Your task to perform on an android device: turn notification dots on Image 0: 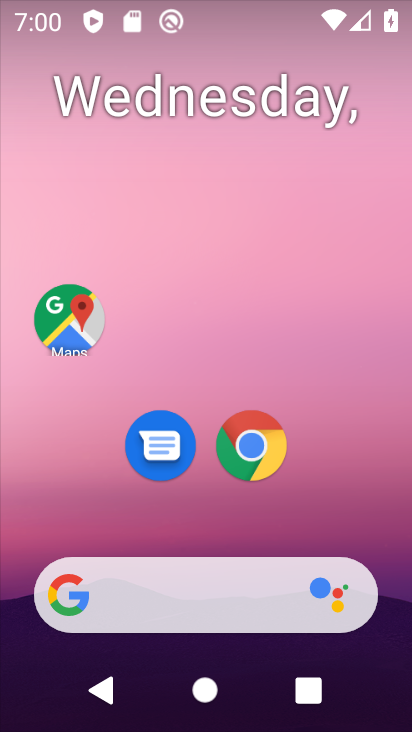
Step 0: press home button
Your task to perform on an android device: turn notification dots on Image 1: 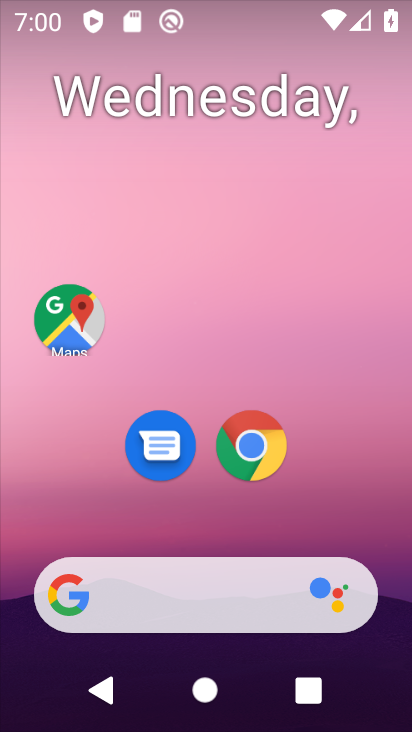
Step 1: drag from (354, 484) to (361, 92)
Your task to perform on an android device: turn notification dots on Image 2: 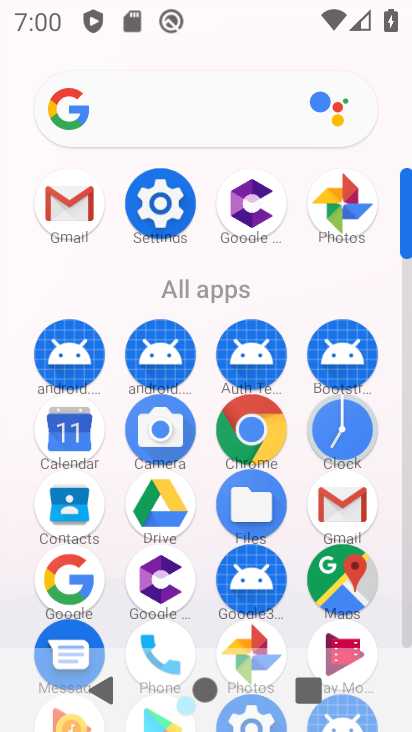
Step 2: drag from (405, 585) to (407, 652)
Your task to perform on an android device: turn notification dots on Image 3: 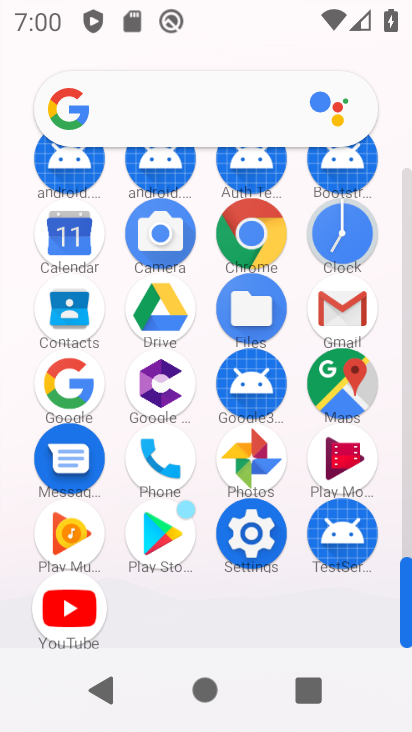
Step 3: click (405, 637)
Your task to perform on an android device: turn notification dots on Image 4: 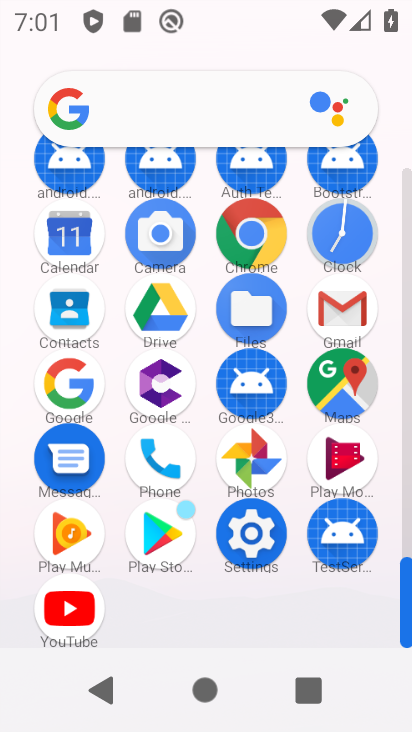
Step 4: click (245, 542)
Your task to perform on an android device: turn notification dots on Image 5: 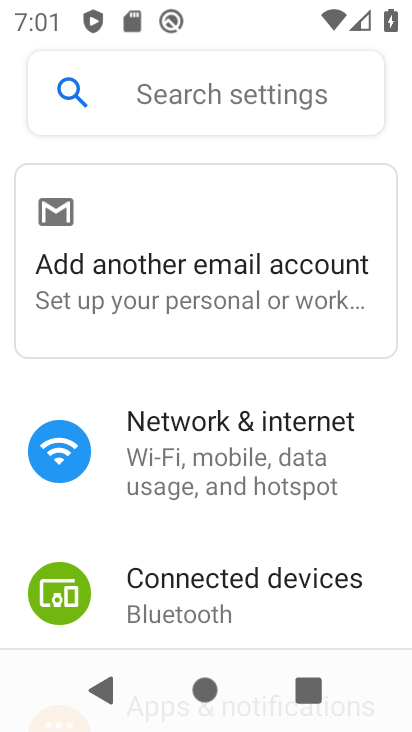
Step 5: drag from (206, 563) to (227, 256)
Your task to perform on an android device: turn notification dots on Image 6: 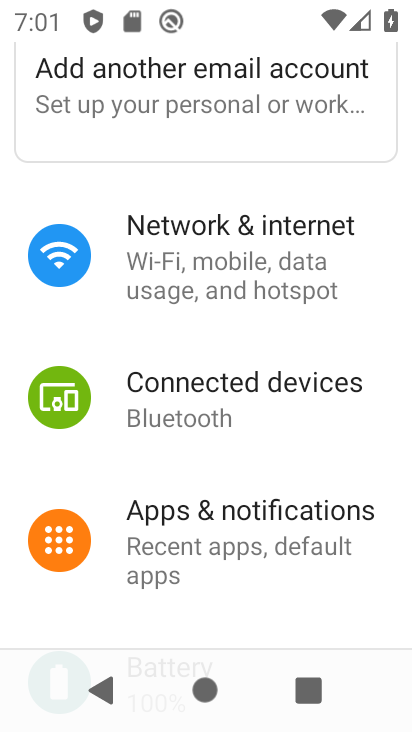
Step 6: click (273, 528)
Your task to perform on an android device: turn notification dots on Image 7: 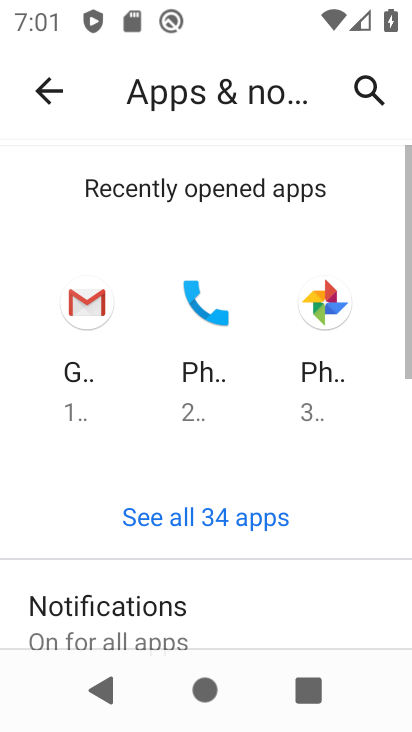
Step 7: click (228, 595)
Your task to perform on an android device: turn notification dots on Image 8: 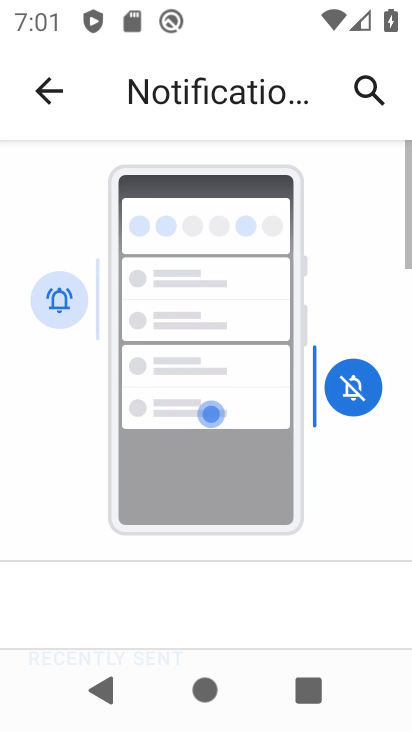
Step 8: drag from (228, 595) to (240, 184)
Your task to perform on an android device: turn notification dots on Image 9: 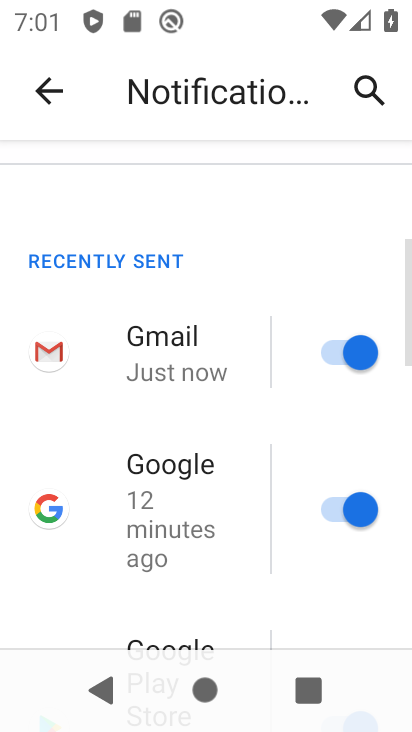
Step 9: drag from (246, 500) to (211, 239)
Your task to perform on an android device: turn notification dots on Image 10: 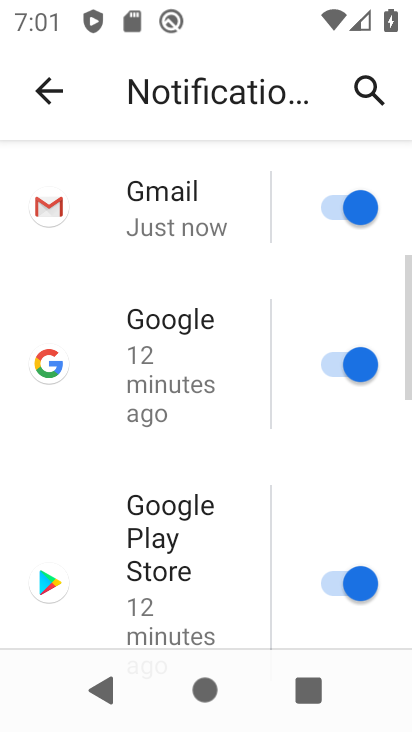
Step 10: drag from (217, 358) to (217, 179)
Your task to perform on an android device: turn notification dots on Image 11: 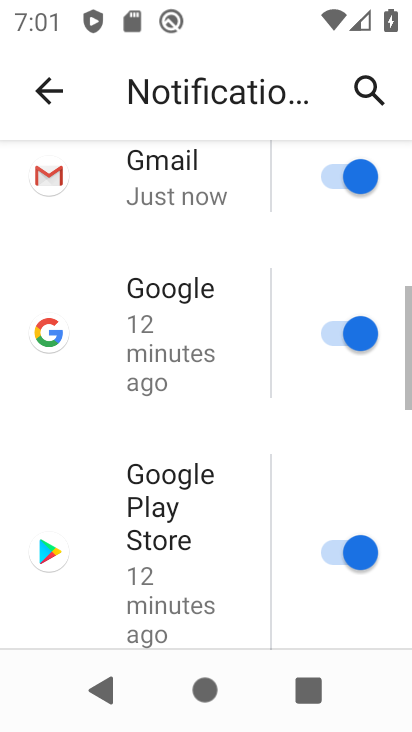
Step 11: drag from (205, 370) to (224, 203)
Your task to perform on an android device: turn notification dots on Image 12: 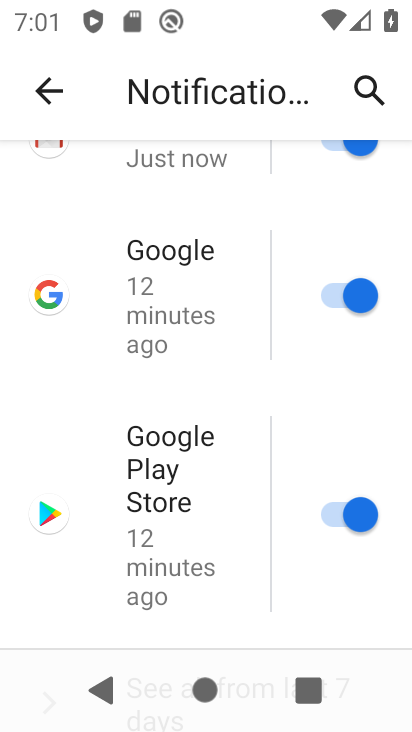
Step 12: drag from (232, 515) to (231, 276)
Your task to perform on an android device: turn notification dots on Image 13: 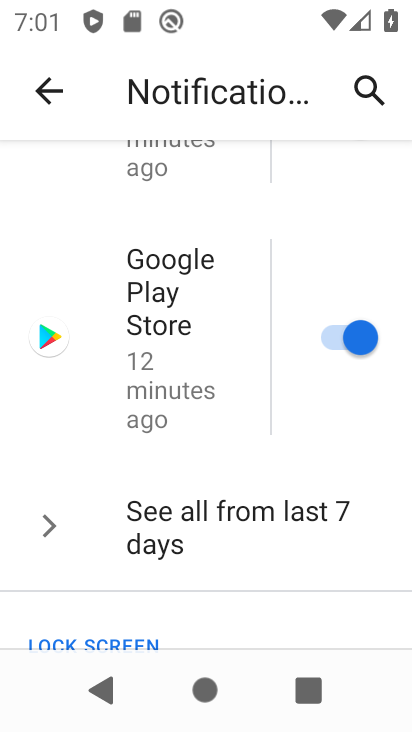
Step 13: drag from (268, 581) to (219, 282)
Your task to perform on an android device: turn notification dots on Image 14: 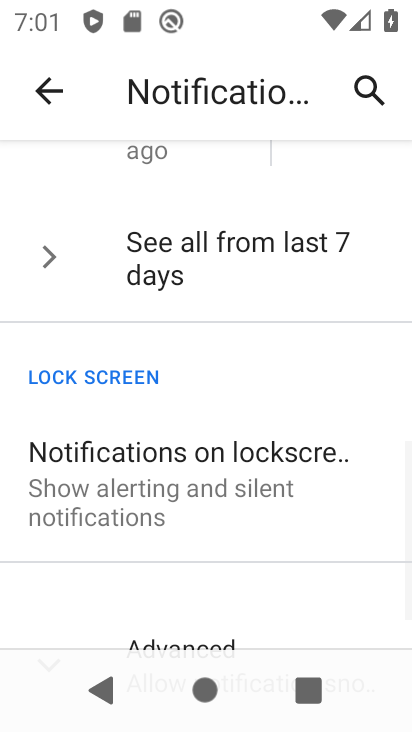
Step 14: drag from (236, 577) to (205, 322)
Your task to perform on an android device: turn notification dots on Image 15: 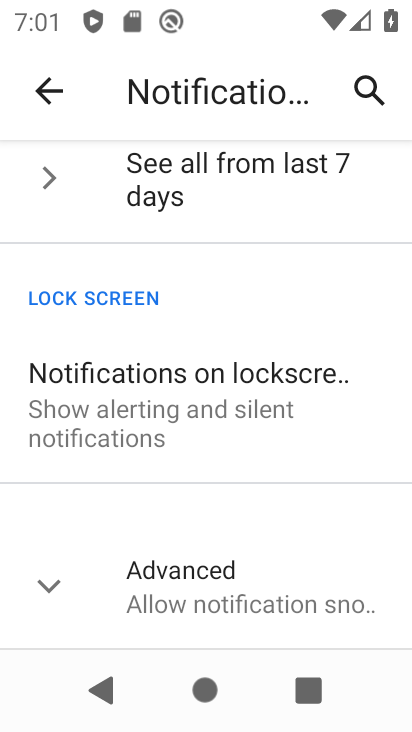
Step 15: click (152, 610)
Your task to perform on an android device: turn notification dots on Image 16: 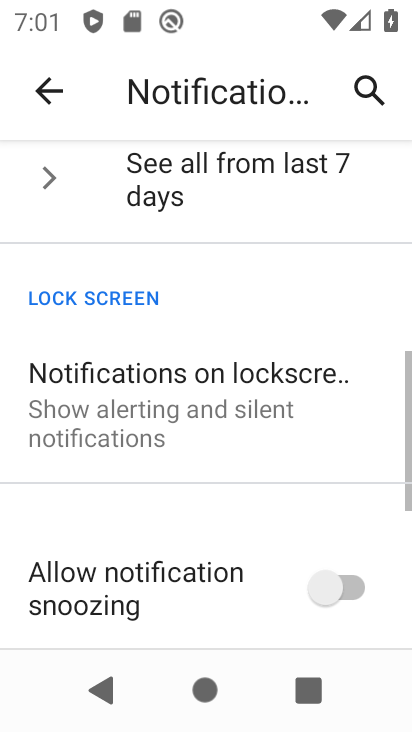
Step 16: task complete